Your task to perform on an android device: Open sound settings Image 0: 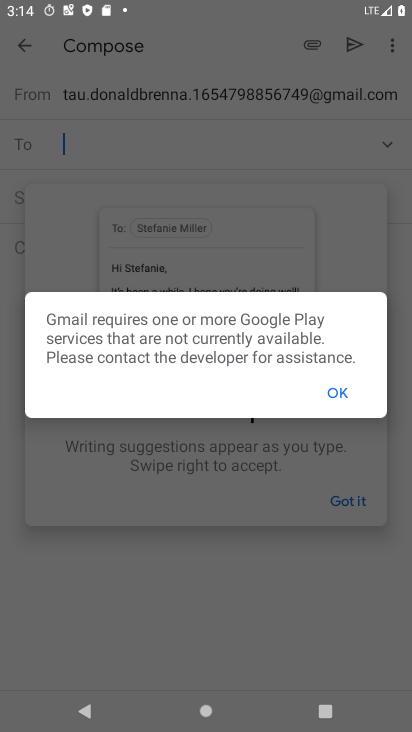
Step 0: press home button
Your task to perform on an android device: Open sound settings Image 1: 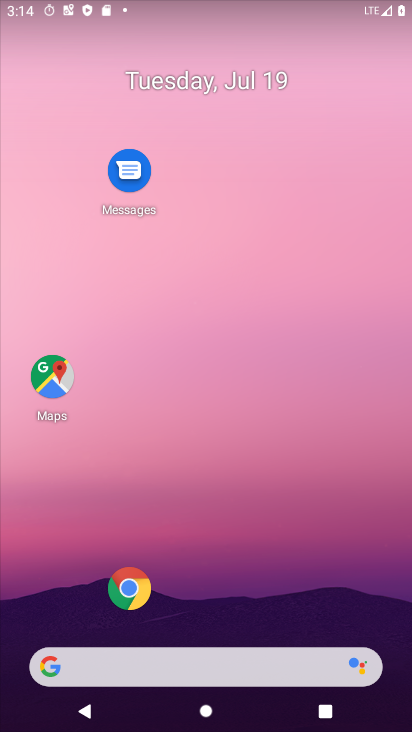
Step 1: drag from (52, 690) to (290, 44)
Your task to perform on an android device: Open sound settings Image 2: 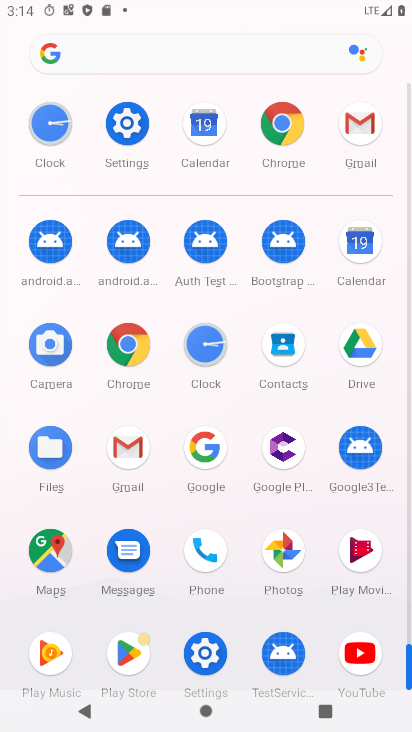
Step 2: click (209, 643)
Your task to perform on an android device: Open sound settings Image 3: 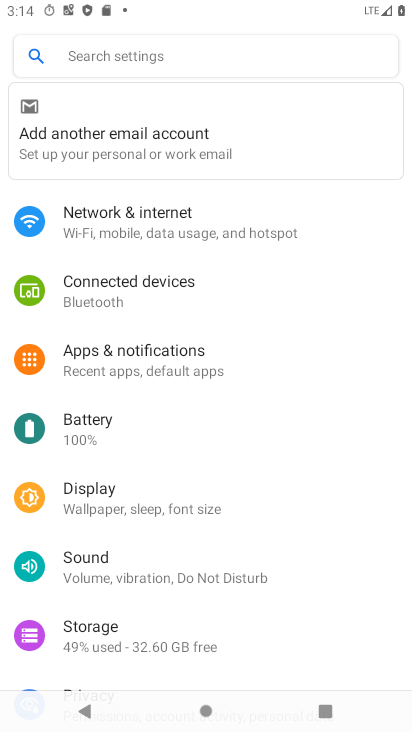
Step 3: click (108, 569)
Your task to perform on an android device: Open sound settings Image 4: 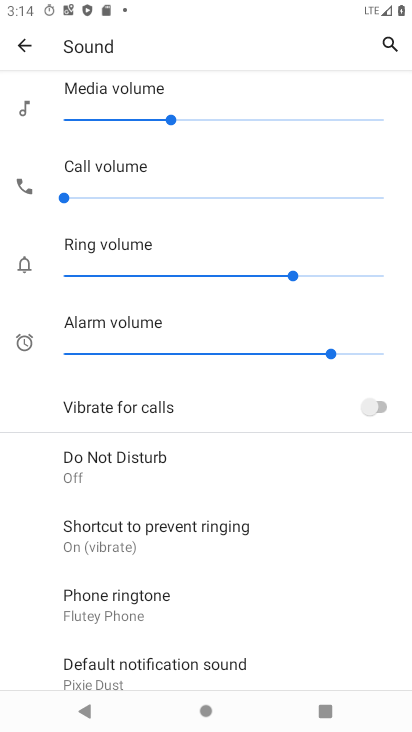
Step 4: task complete